Your task to perform on an android device: check battery use Image 0: 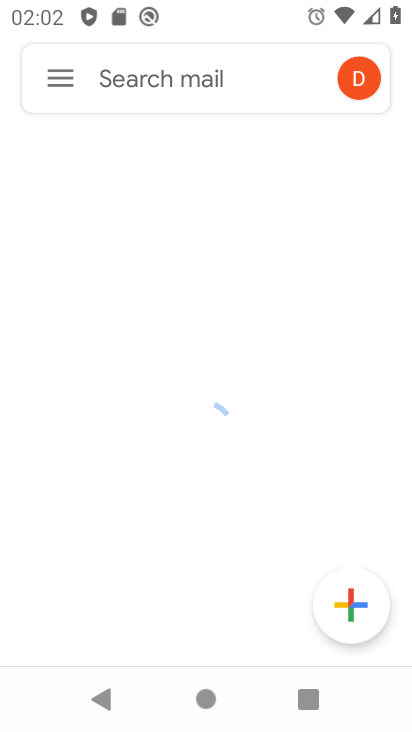
Step 0: press home button
Your task to perform on an android device: check battery use Image 1: 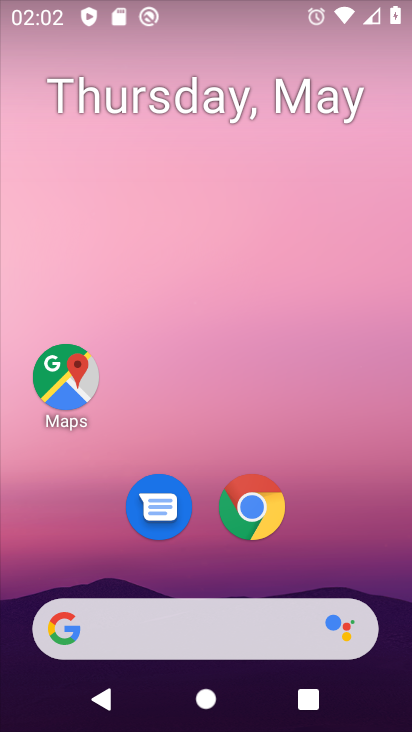
Step 1: drag from (350, 562) to (363, 186)
Your task to perform on an android device: check battery use Image 2: 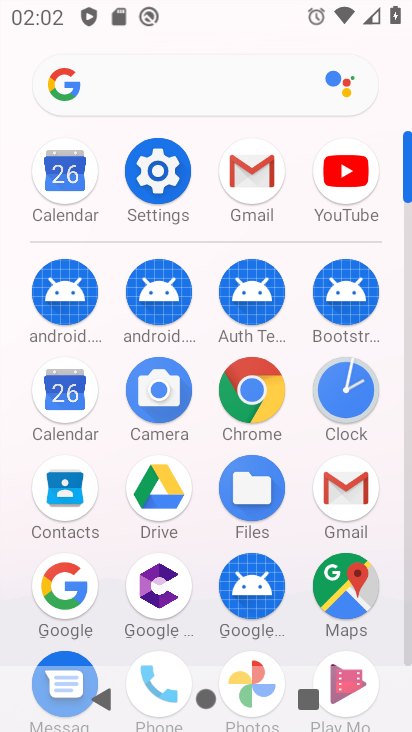
Step 2: click (146, 196)
Your task to perform on an android device: check battery use Image 3: 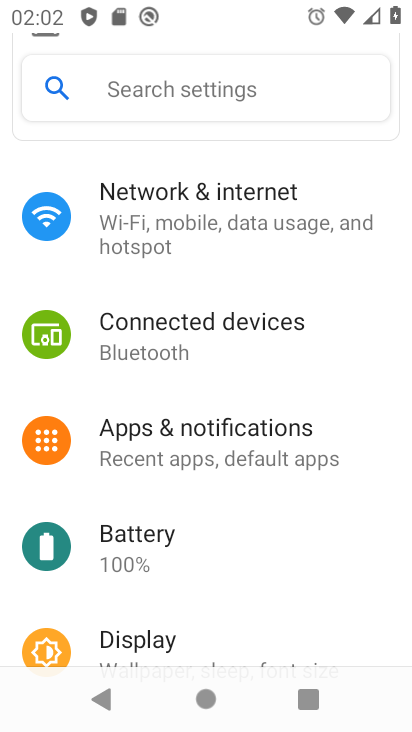
Step 3: click (151, 539)
Your task to perform on an android device: check battery use Image 4: 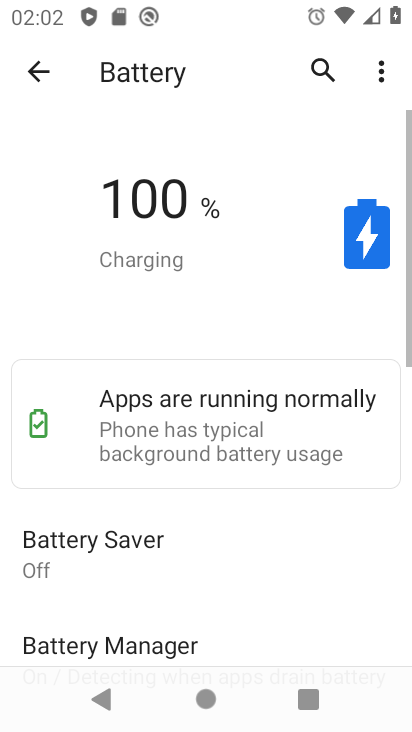
Step 4: task complete